Your task to perform on an android device: Show me the alarms in the clock app Image 0: 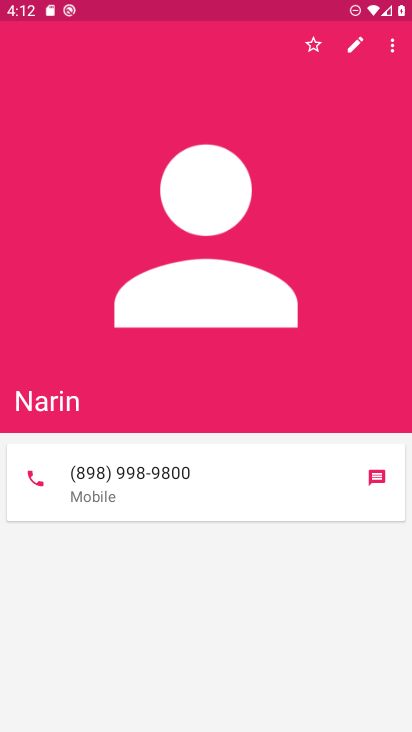
Step 0: press home button
Your task to perform on an android device: Show me the alarms in the clock app Image 1: 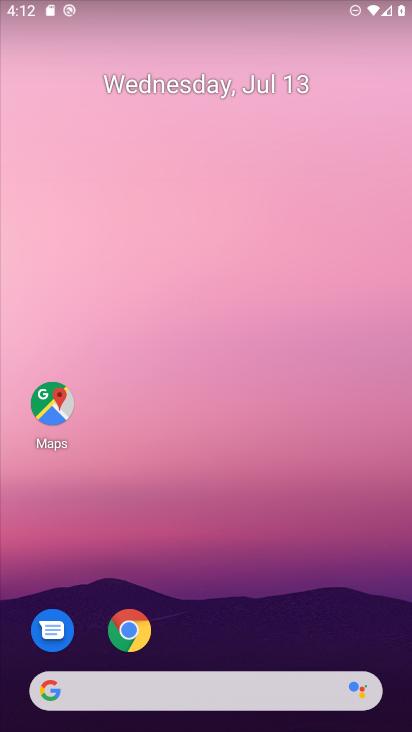
Step 1: drag from (180, 616) to (144, 116)
Your task to perform on an android device: Show me the alarms in the clock app Image 2: 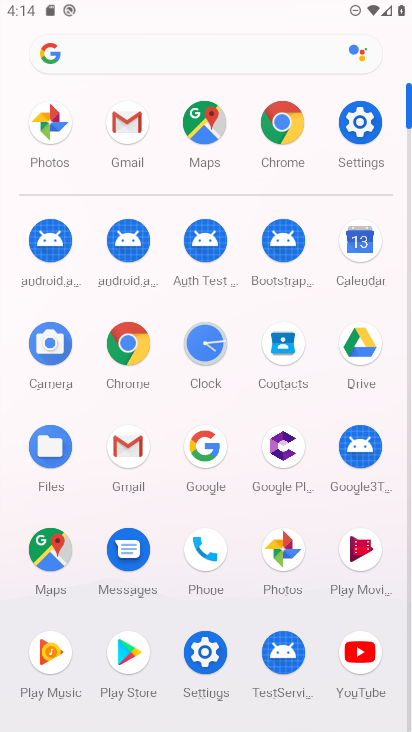
Step 2: click (200, 345)
Your task to perform on an android device: Show me the alarms in the clock app Image 3: 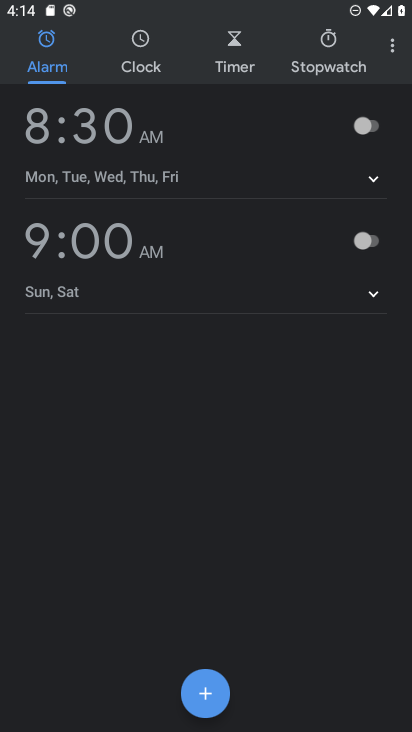
Step 3: task complete